Your task to perform on an android device: Go to settings Image 0: 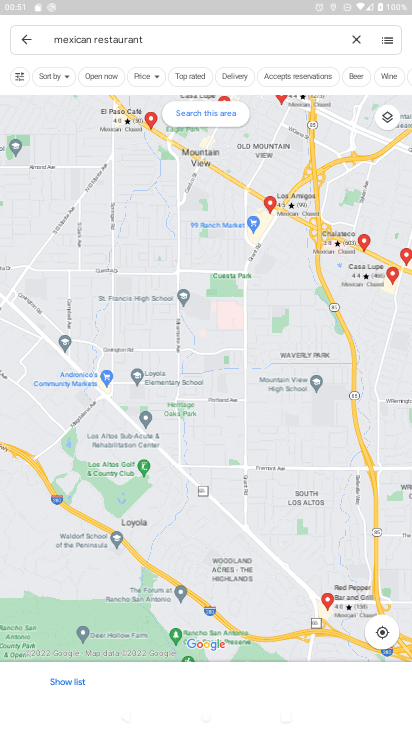
Step 0: press home button
Your task to perform on an android device: Go to settings Image 1: 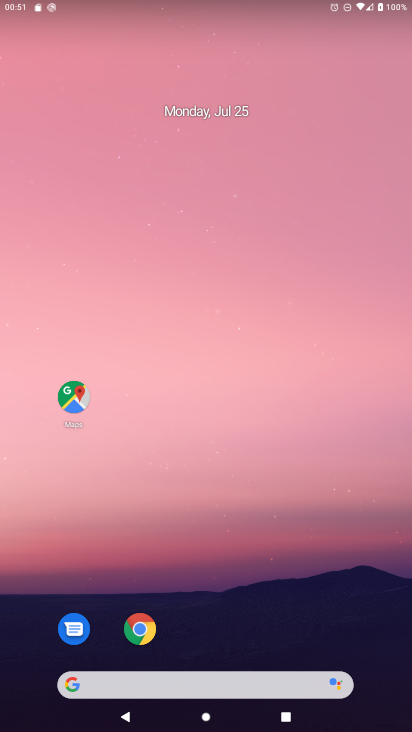
Step 1: drag from (280, 401) to (322, 166)
Your task to perform on an android device: Go to settings Image 2: 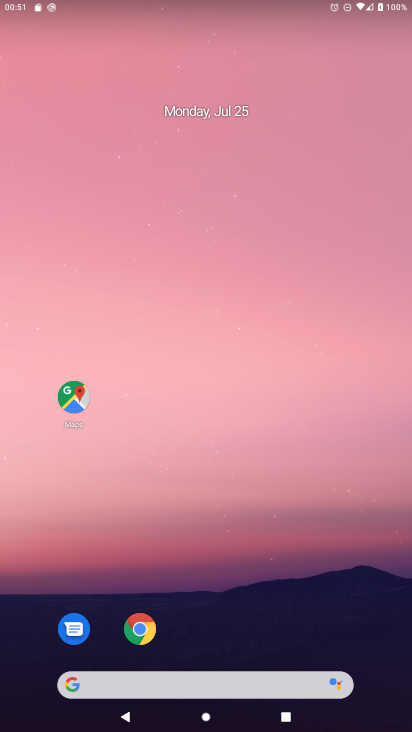
Step 2: drag from (198, 616) to (351, 82)
Your task to perform on an android device: Go to settings Image 3: 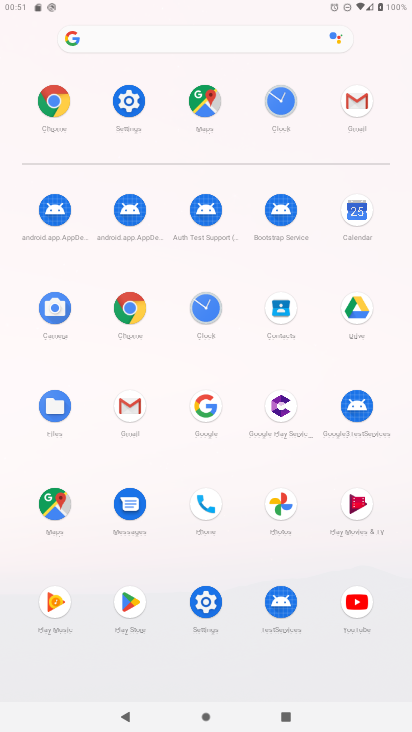
Step 3: click (116, 98)
Your task to perform on an android device: Go to settings Image 4: 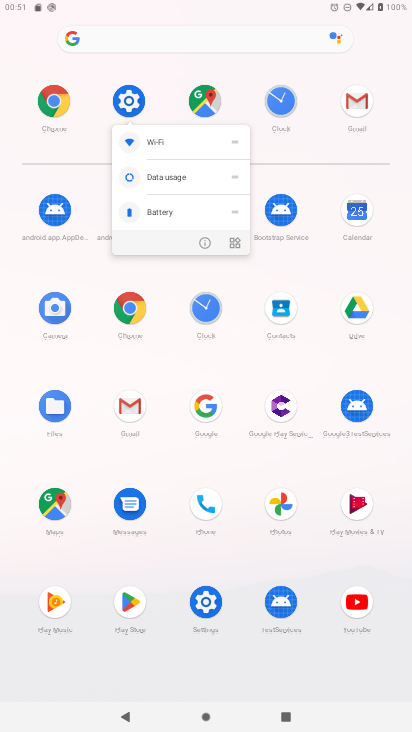
Step 4: click (201, 248)
Your task to perform on an android device: Go to settings Image 5: 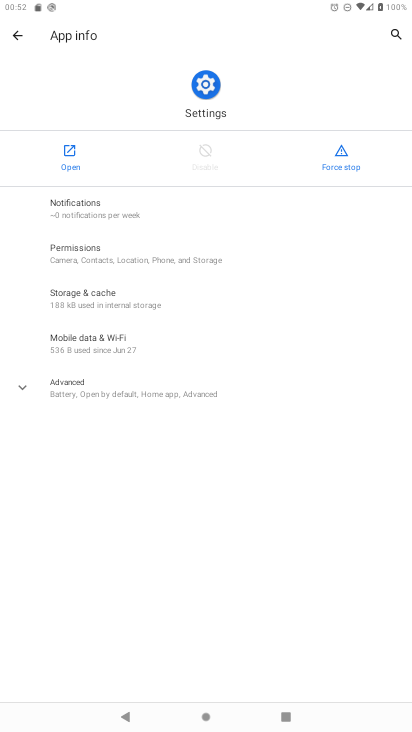
Step 5: click (69, 150)
Your task to perform on an android device: Go to settings Image 6: 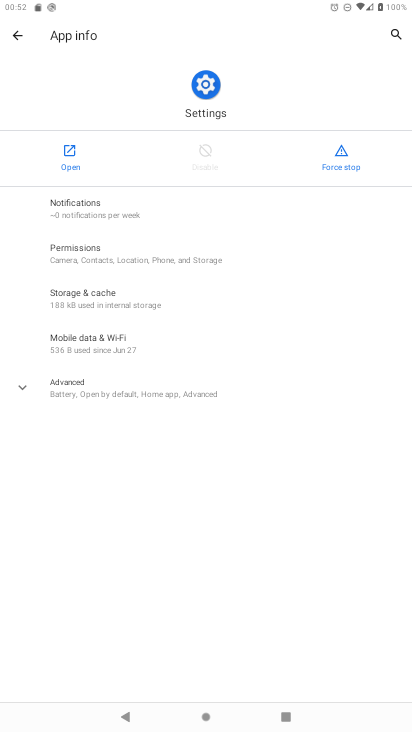
Step 6: click (69, 150)
Your task to perform on an android device: Go to settings Image 7: 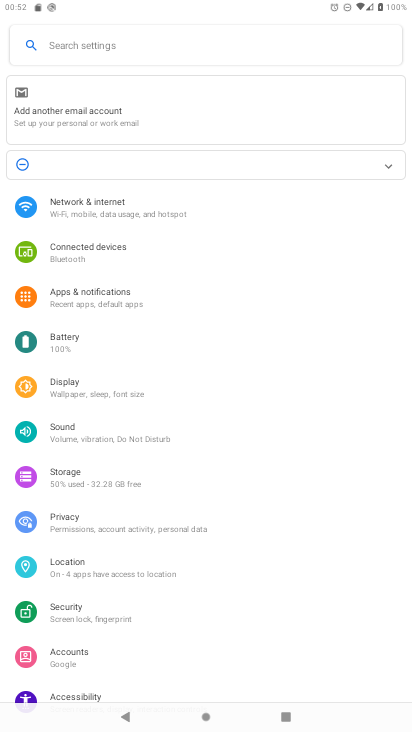
Step 7: task complete